Your task to perform on an android device: set default search engine in the chrome app Image 0: 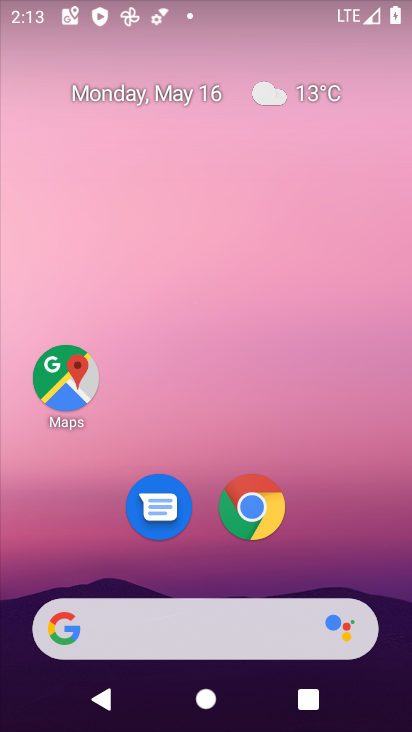
Step 0: click (260, 510)
Your task to perform on an android device: set default search engine in the chrome app Image 1: 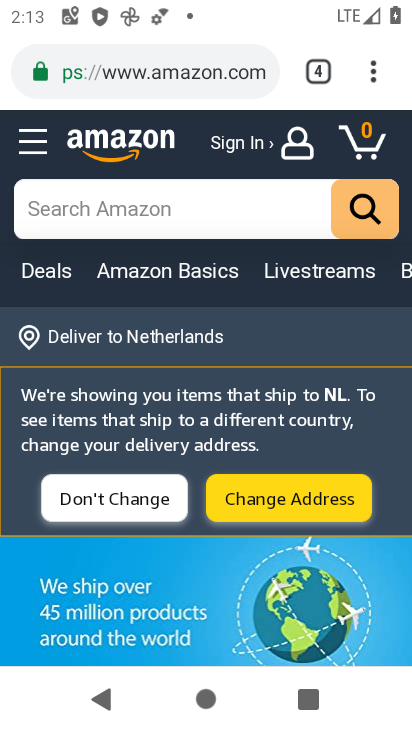
Step 1: click (379, 80)
Your task to perform on an android device: set default search engine in the chrome app Image 2: 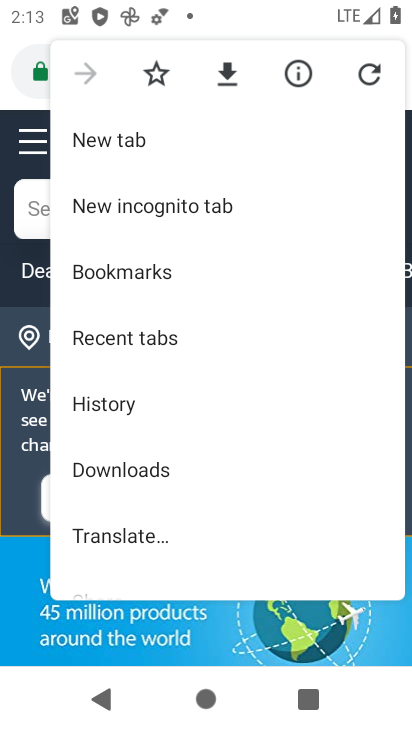
Step 2: drag from (207, 398) to (151, 83)
Your task to perform on an android device: set default search engine in the chrome app Image 3: 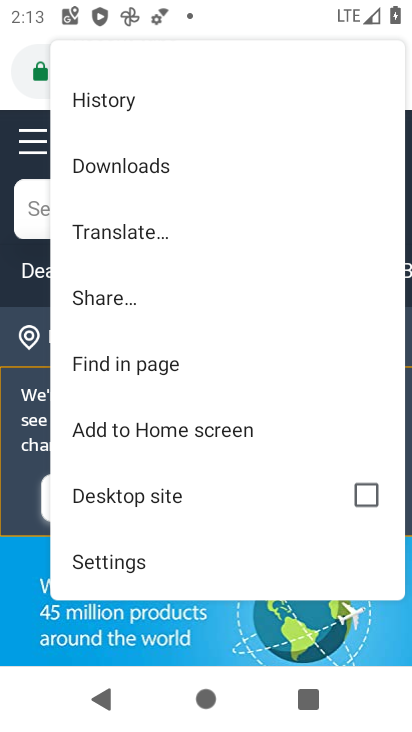
Step 3: click (147, 555)
Your task to perform on an android device: set default search engine in the chrome app Image 4: 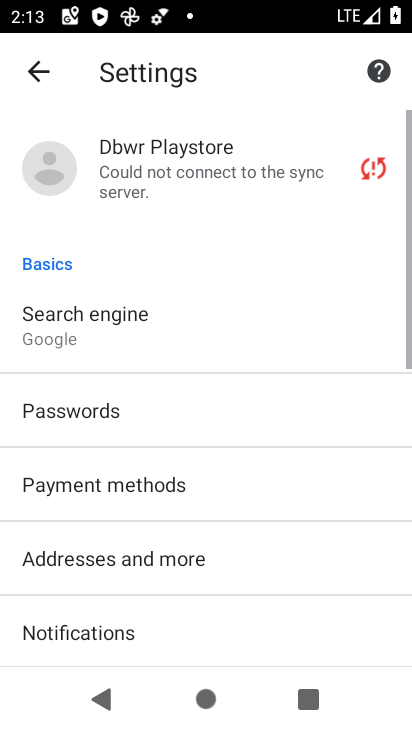
Step 4: click (144, 335)
Your task to perform on an android device: set default search engine in the chrome app Image 5: 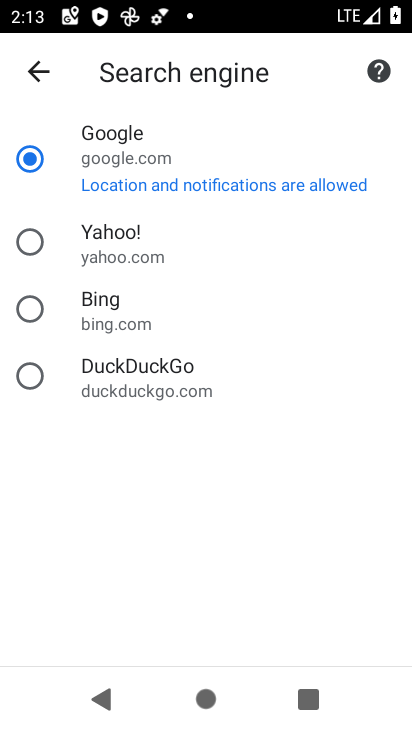
Step 5: click (129, 142)
Your task to perform on an android device: set default search engine in the chrome app Image 6: 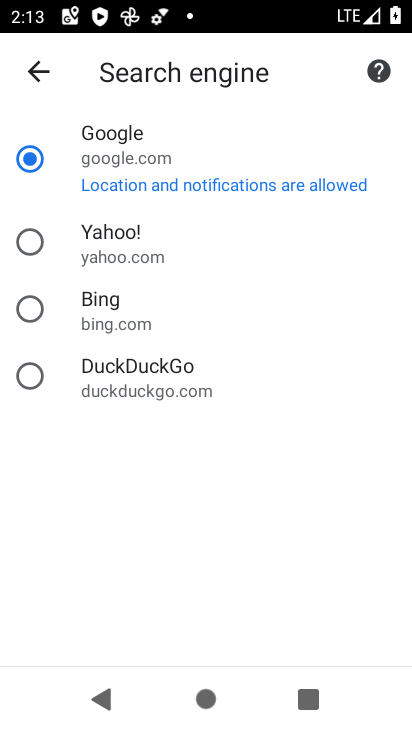
Step 6: task complete